Your task to perform on an android device: turn notification dots off Image 0: 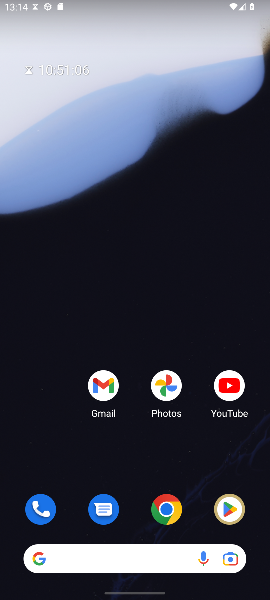
Step 0: press home button
Your task to perform on an android device: turn notification dots off Image 1: 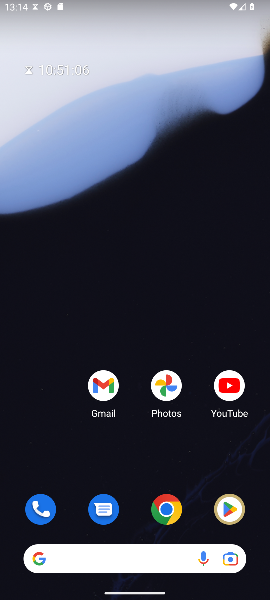
Step 1: drag from (138, 514) to (183, 68)
Your task to perform on an android device: turn notification dots off Image 2: 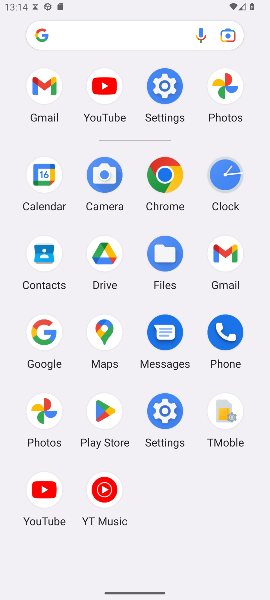
Step 2: click (166, 416)
Your task to perform on an android device: turn notification dots off Image 3: 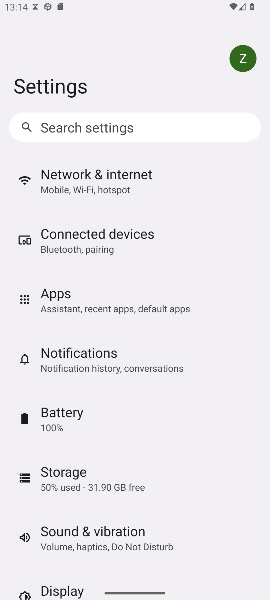
Step 3: click (76, 353)
Your task to perform on an android device: turn notification dots off Image 4: 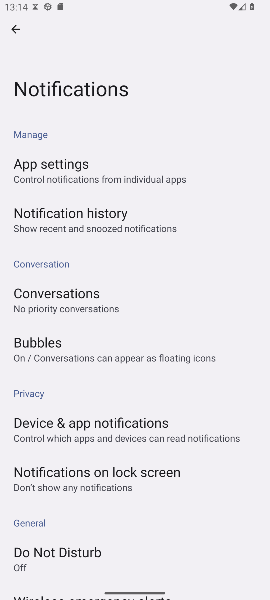
Step 4: drag from (212, 493) to (213, 82)
Your task to perform on an android device: turn notification dots off Image 5: 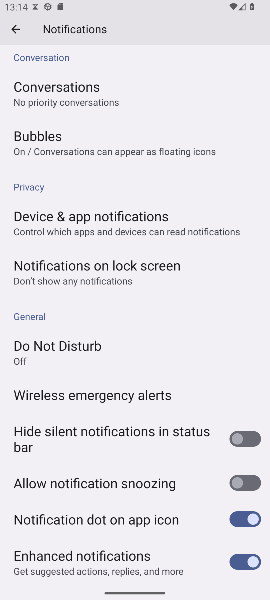
Step 5: click (252, 520)
Your task to perform on an android device: turn notification dots off Image 6: 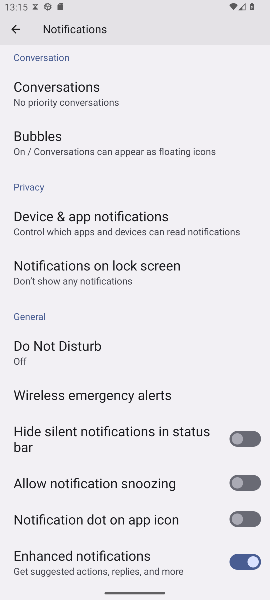
Step 6: task complete